Your task to perform on an android device: turn off location history Image 0: 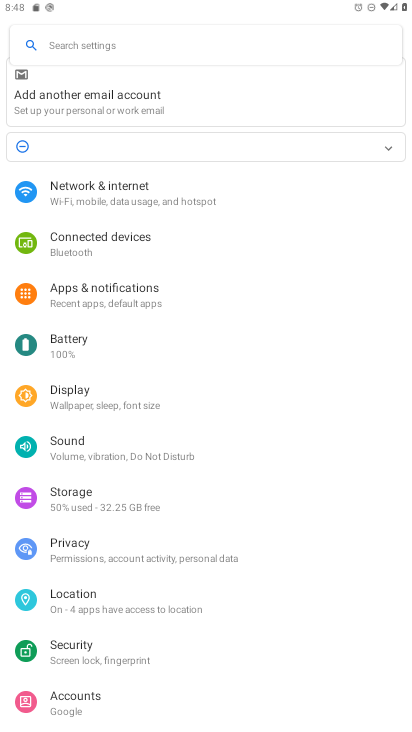
Step 0: click (93, 599)
Your task to perform on an android device: turn off location history Image 1: 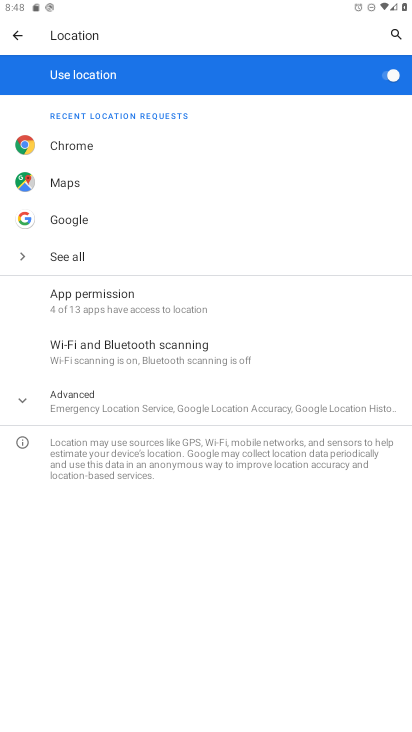
Step 1: click (27, 406)
Your task to perform on an android device: turn off location history Image 2: 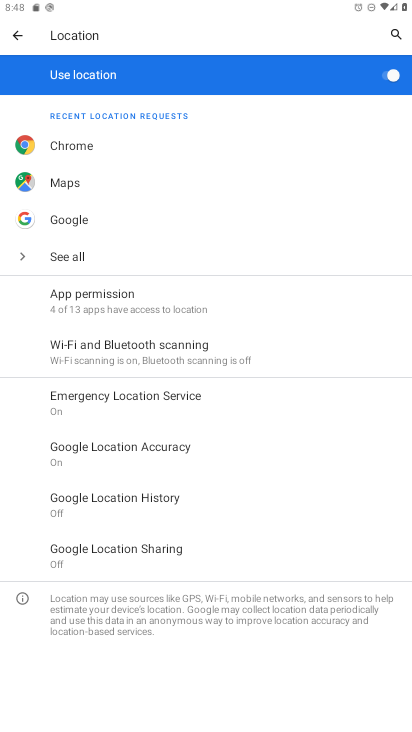
Step 2: click (127, 495)
Your task to perform on an android device: turn off location history Image 3: 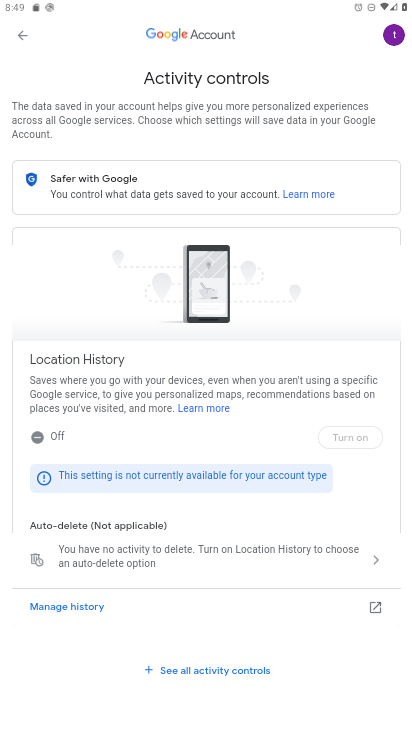
Step 3: click (46, 436)
Your task to perform on an android device: turn off location history Image 4: 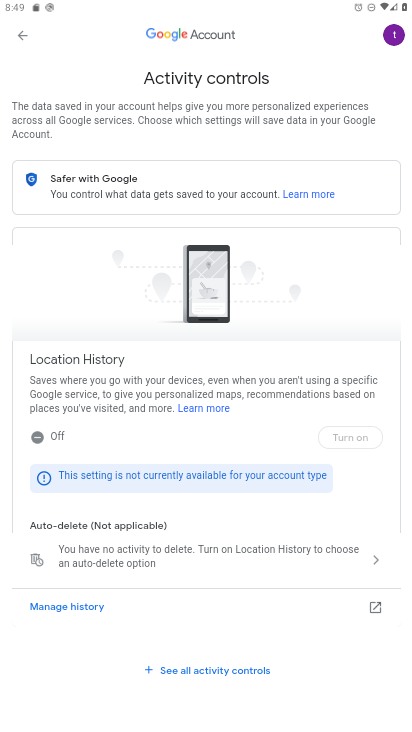
Step 4: task complete